Your task to perform on an android device: change the clock style Image 0: 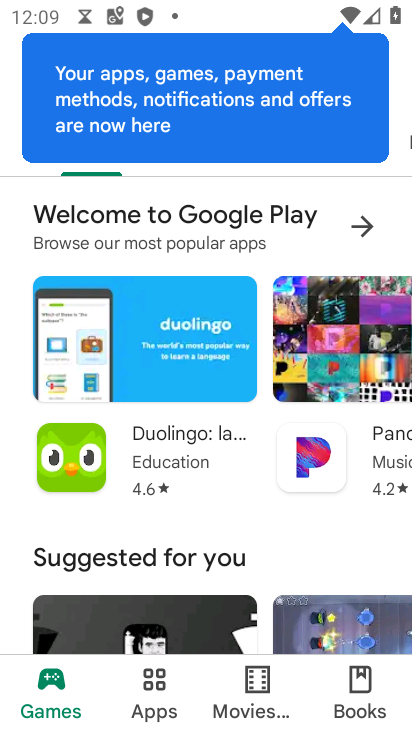
Step 0: press home button
Your task to perform on an android device: change the clock style Image 1: 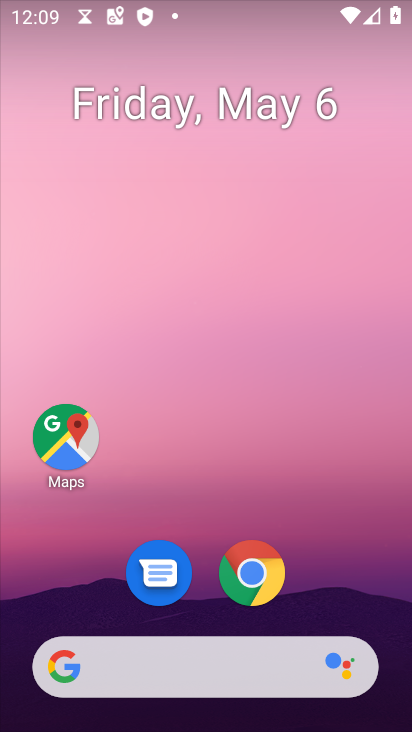
Step 1: drag from (346, 604) to (349, 227)
Your task to perform on an android device: change the clock style Image 2: 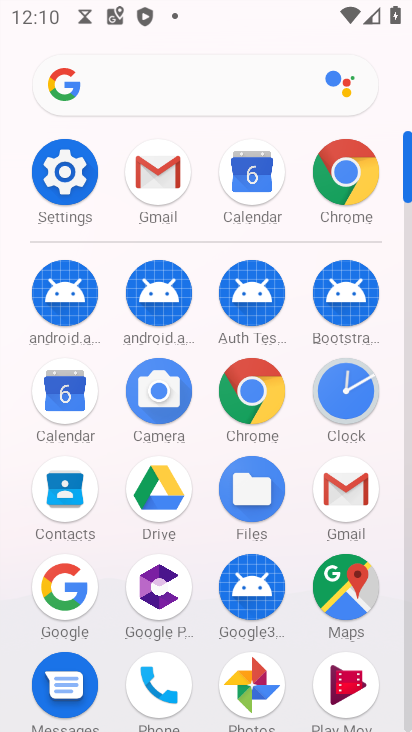
Step 2: click (365, 392)
Your task to perform on an android device: change the clock style Image 3: 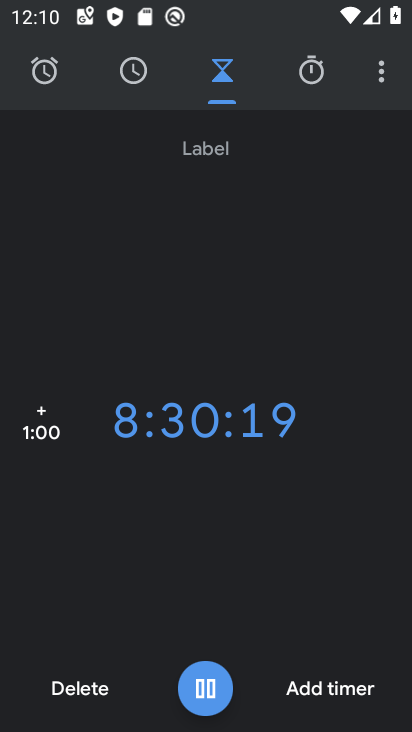
Step 3: click (384, 71)
Your task to perform on an android device: change the clock style Image 4: 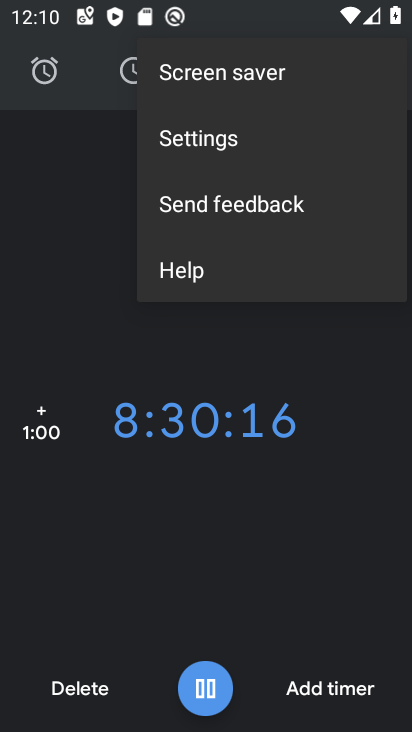
Step 4: click (209, 142)
Your task to perform on an android device: change the clock style Image 5: 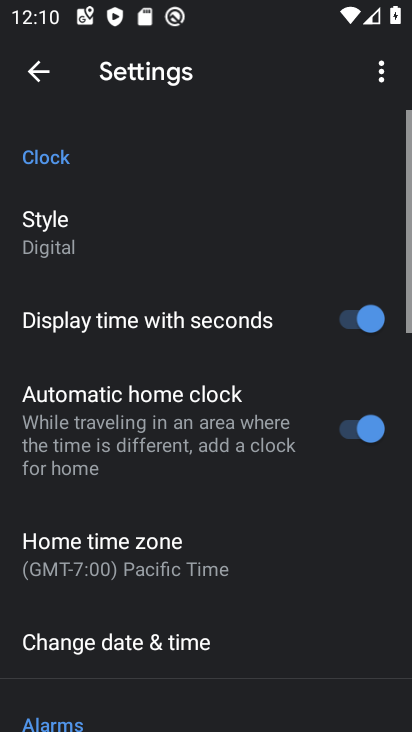
Step 5: click (59, 236)
Your task to perform on an android device: change the clock style Image 6: 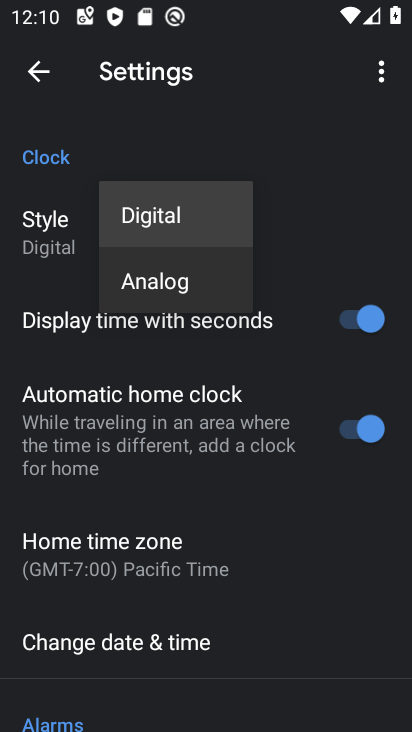
Step 6: click (151, 274)
Your task to perform on an android device: change the clock style Image 7: 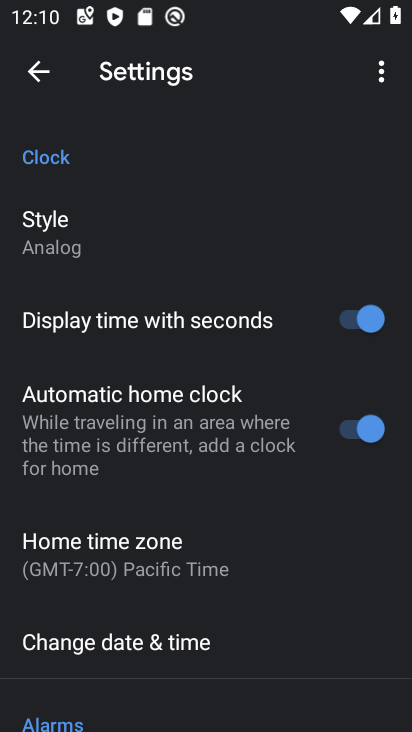
Step 7: task complete